Your task to perform on an android device: Open calendar and show me the fourth week of next month Image 0: 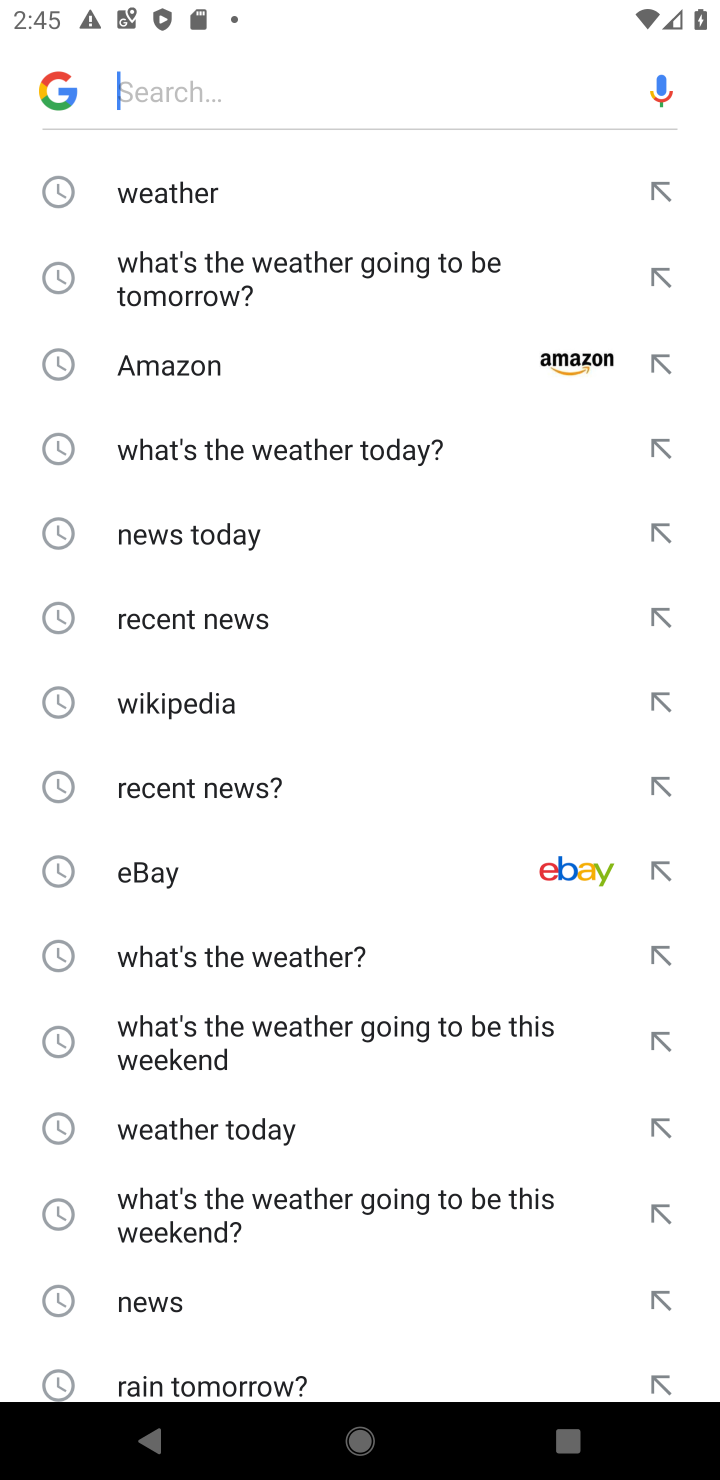
Step 0: press home button
Your task to perform on an android device: Open calendar and show me the fourth week of next month Image 1: 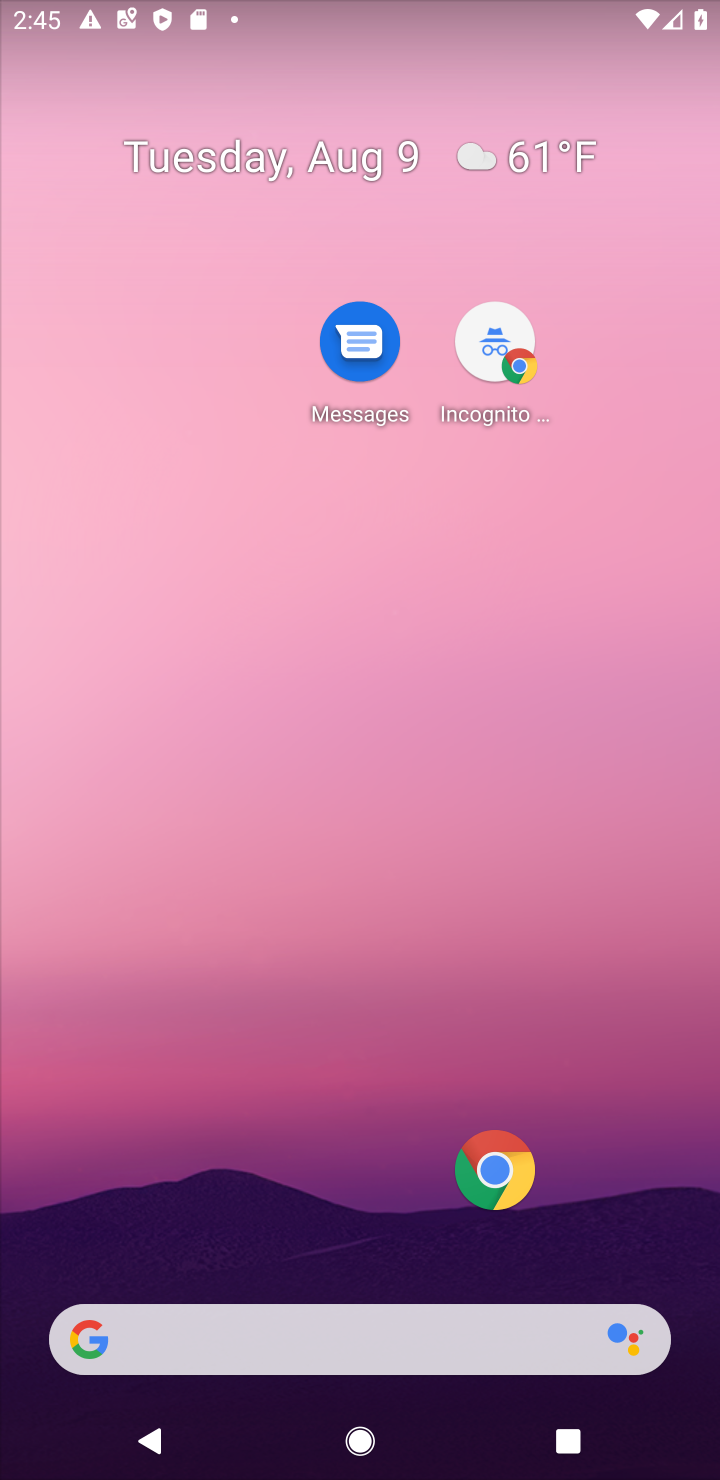
Step 1: drag from (297, 1160) to (471, 71)
Your task to perform on an android device: Open calendar and show me the fourth week of next month Image 2: 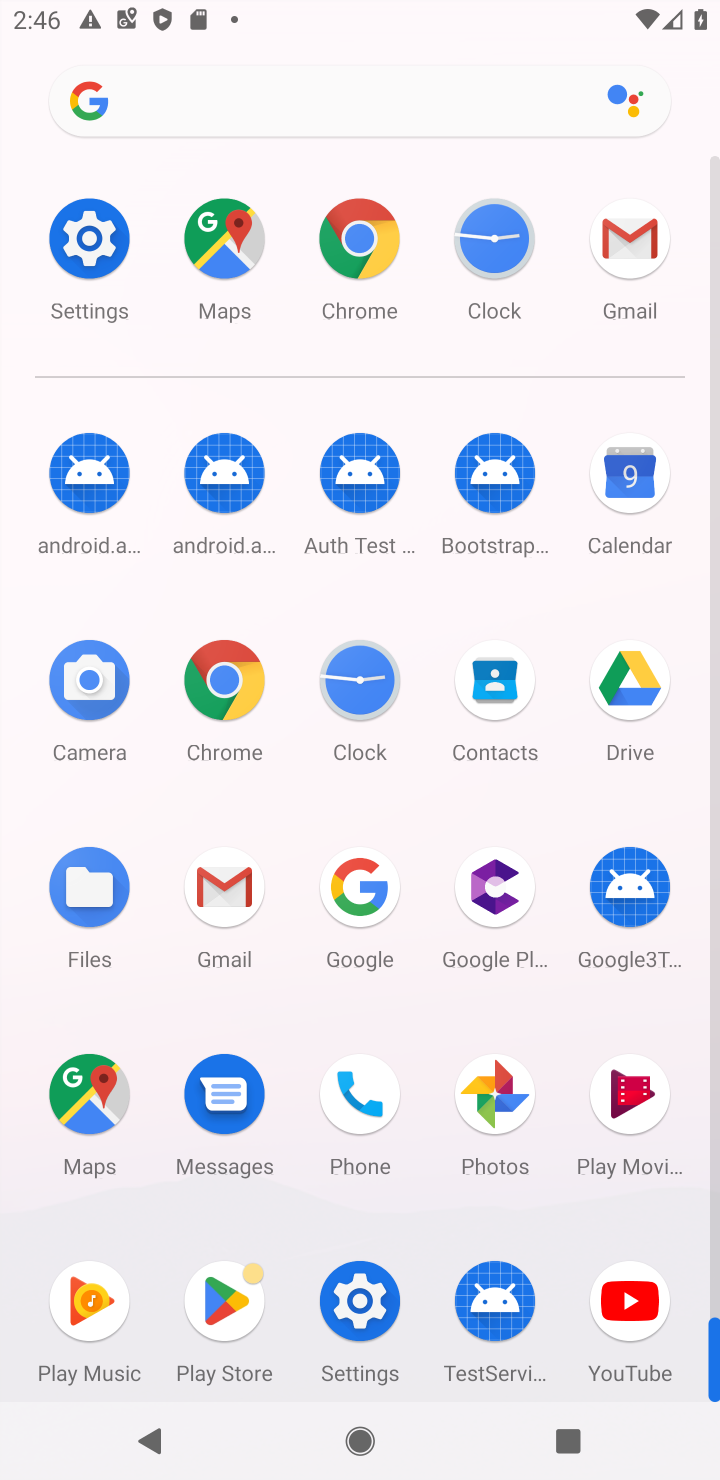
Step 2: click (637, 509)
Your task to perform on an android device: Open calendar and show me the fourth week of next month Image 3: 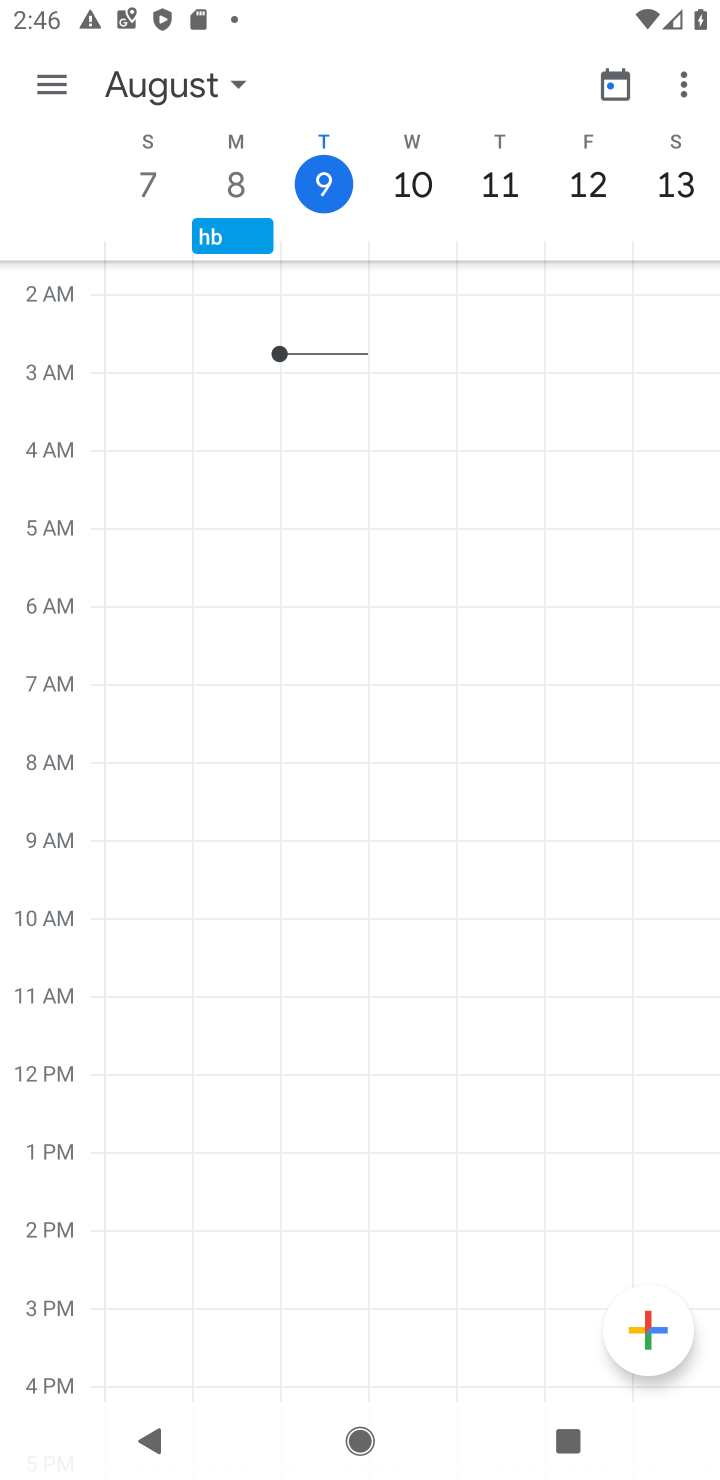
Step 3: click (178, 49)
Your task to perform on an android device: Open calendar and show me the fourth week of next month Image 4: 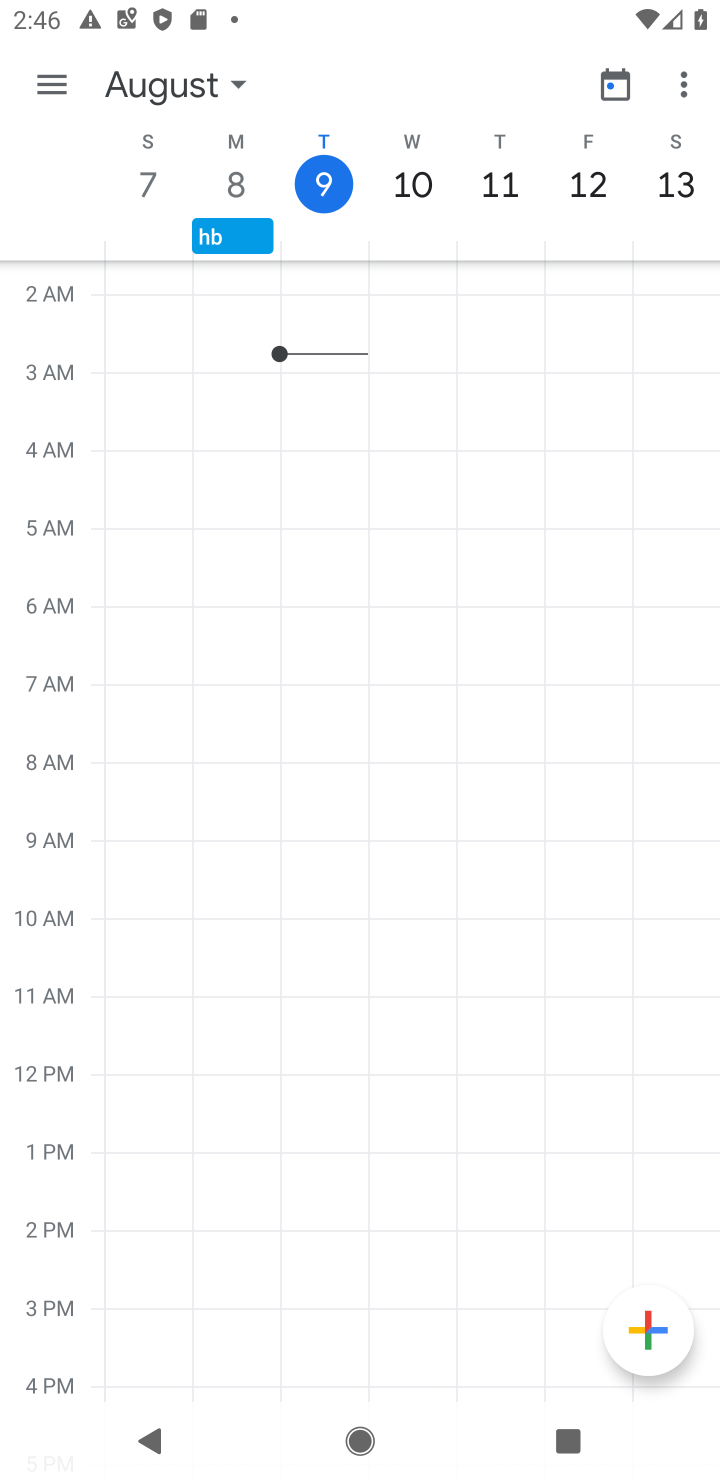
Step 4: click (163, 89)
Your task to perform on an android device: Open calendar and show me the fourth week of next month Image 5: 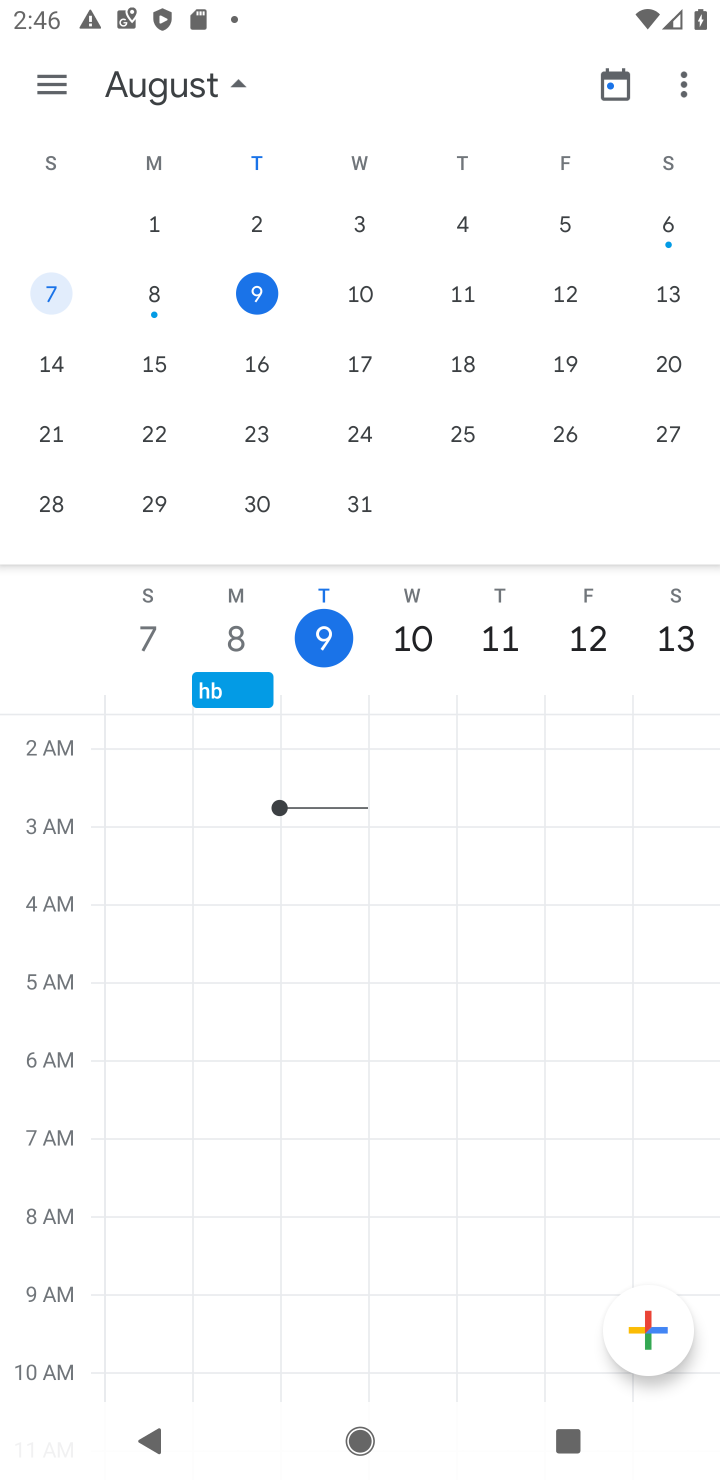
Step 5: drag from (245, 240) to (83, 83)
Your task to perform on an android device: Open calendar and show me the fourth week of next month Image 6: 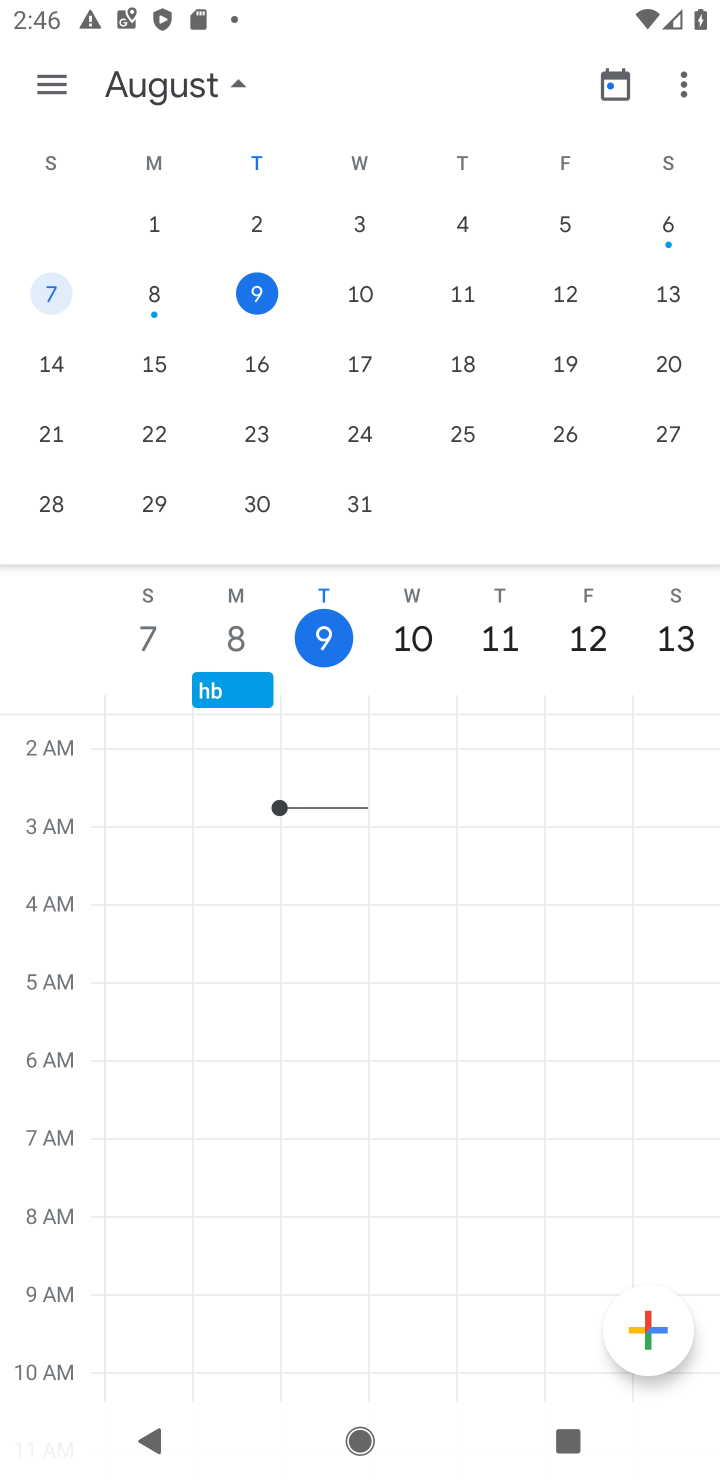
Step 6: drag from (580, 327) to (27, 189)
Your task to perform on an android device: Open calendar and show me the fourth week of next month Image 7: 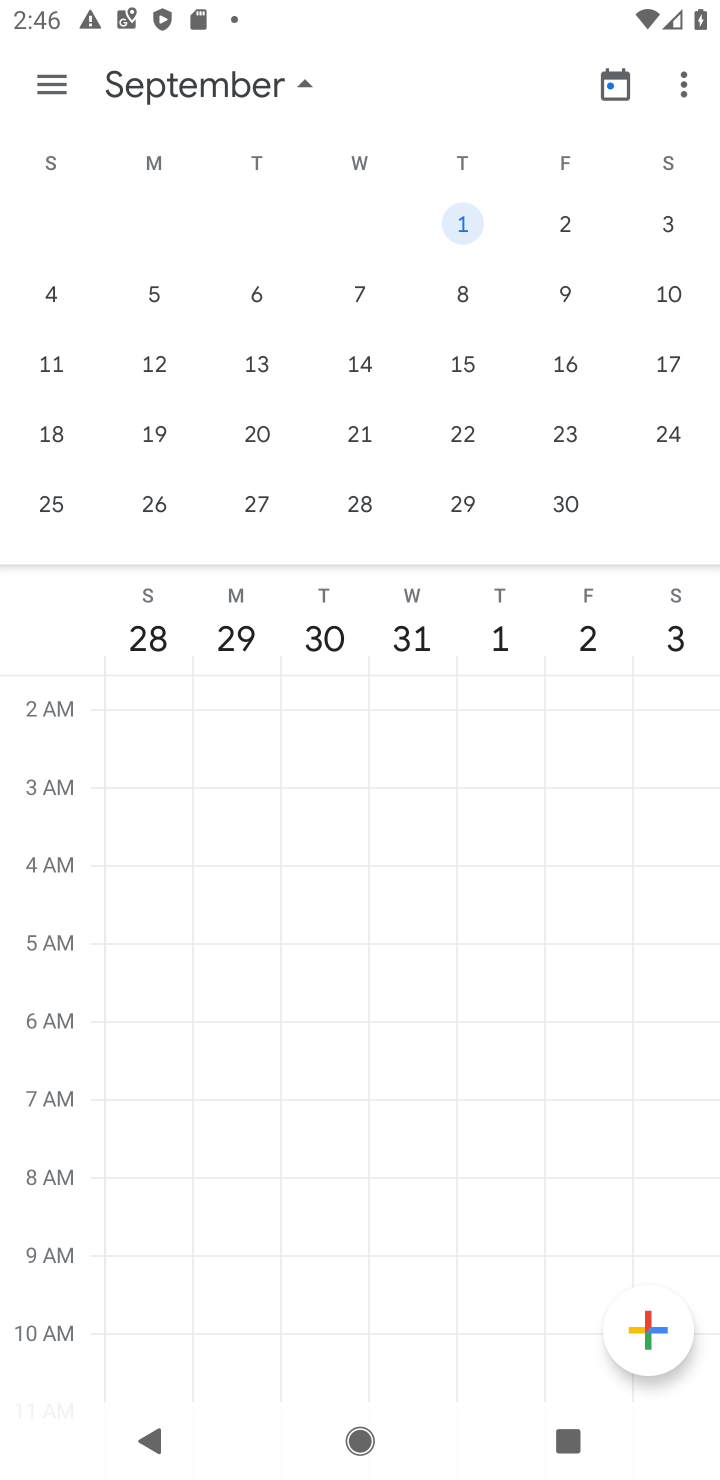
Step 7: click (522, 435)
Your task to perform on an android device: Open calendar and show me the fourth week of next month Image 8: 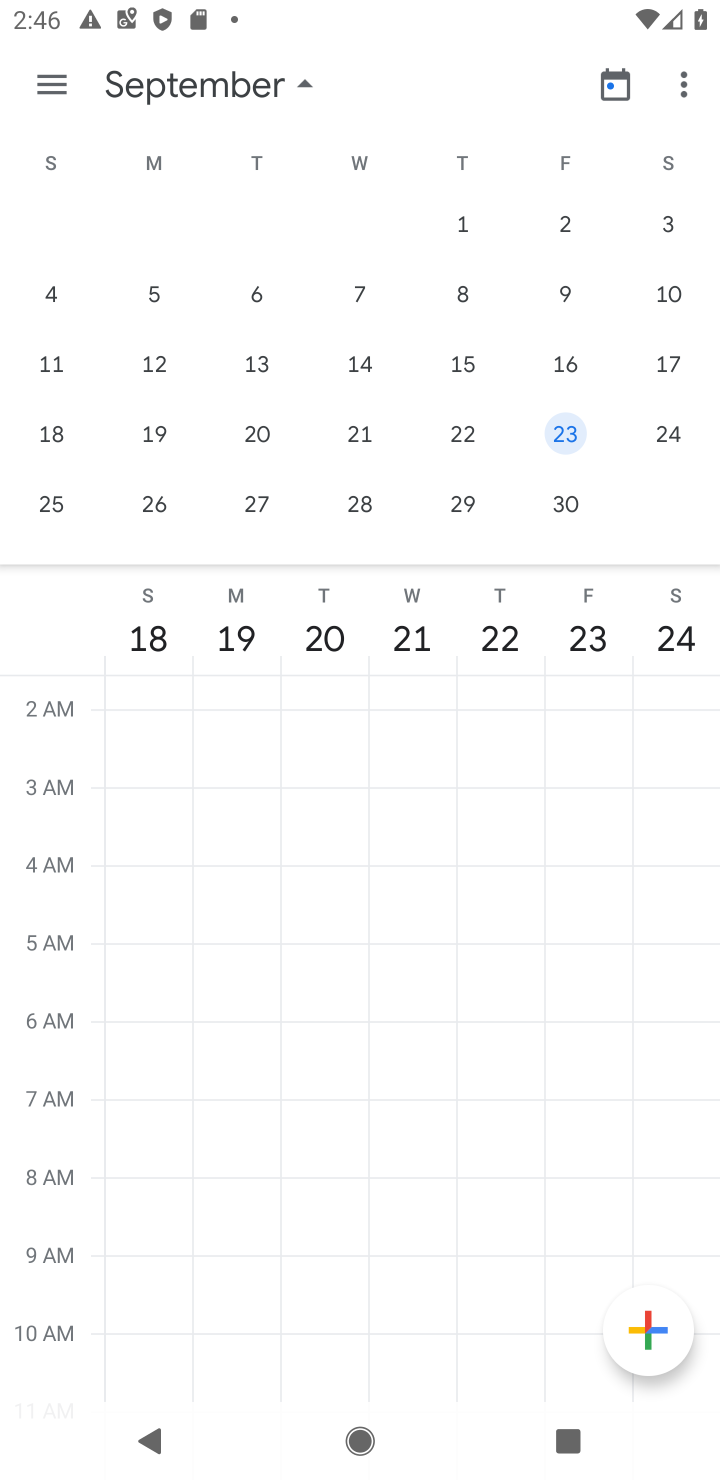
Step 8: task complete